Your task to perform on an android device: change the clock style Image 0: 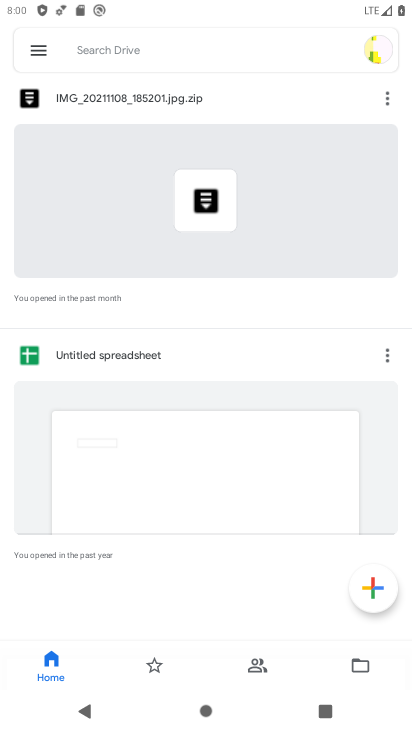
Step 0: press home button
Your task to perform on an android device: change the clock style Image 1: 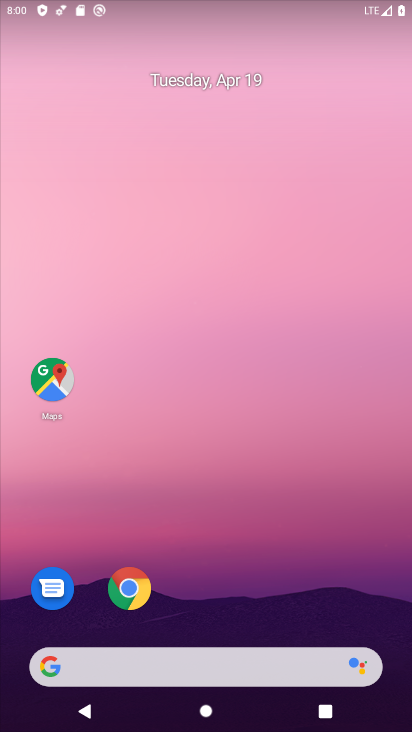
Step 1: drag from (225, 549) to (223, 55)
Your task to perform on an android device: change the clock style Image 2: 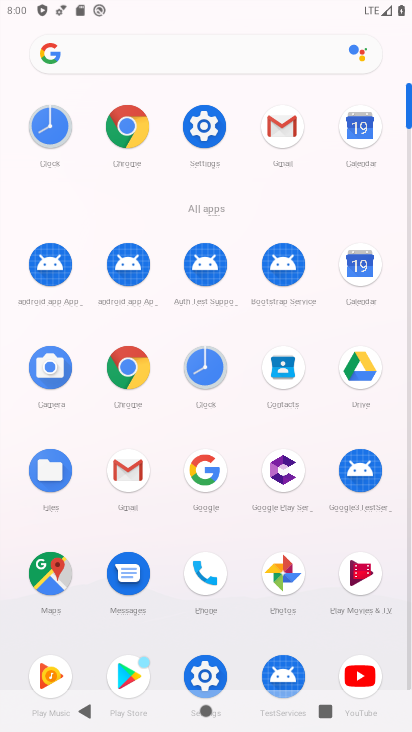
Step 2: click (202, 364)
Your task to perform on an android device: change the clock style Image 3: 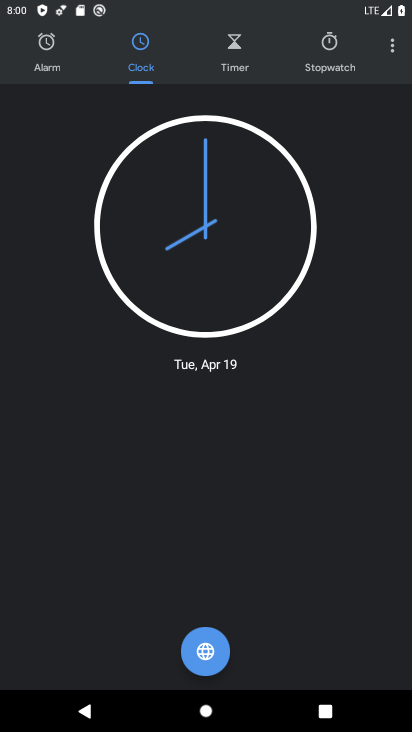
Step 3: click (388, 48)
Your task to perform on an android device: change the clock style Image 4: 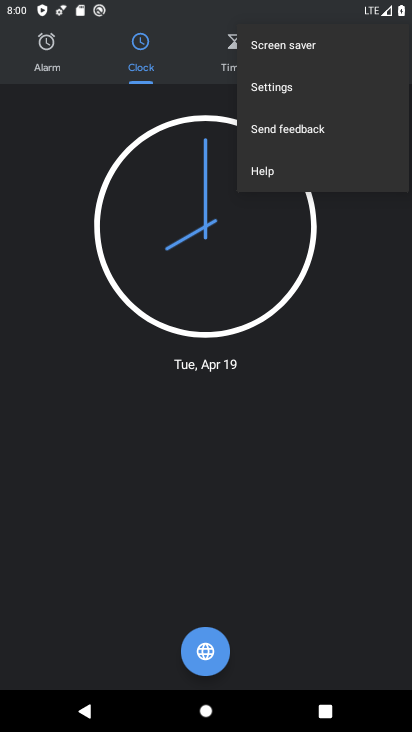
Step 4: click (294, 92)
Your task to perform on an android device: change the clock style Image 5: 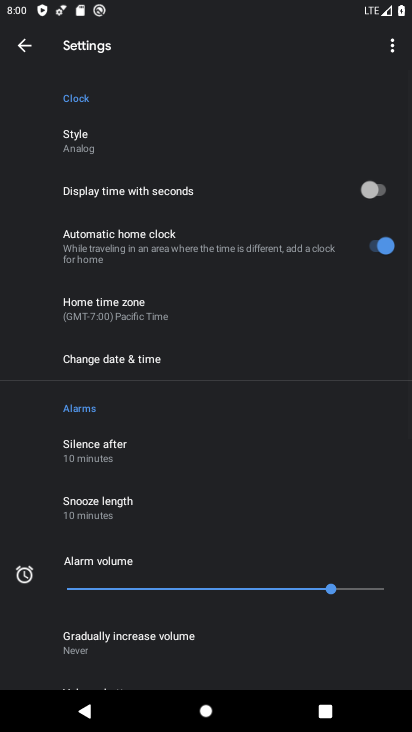
Step 5: click (90, 138)
Your task to perform on an android device: change the clock style Image 6: 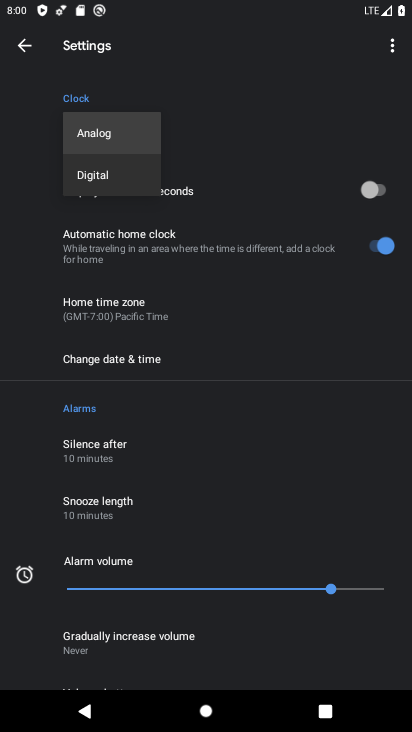
Step 6: click (116, 180)
Your task to perform on an android device: change the clock style Image 7: 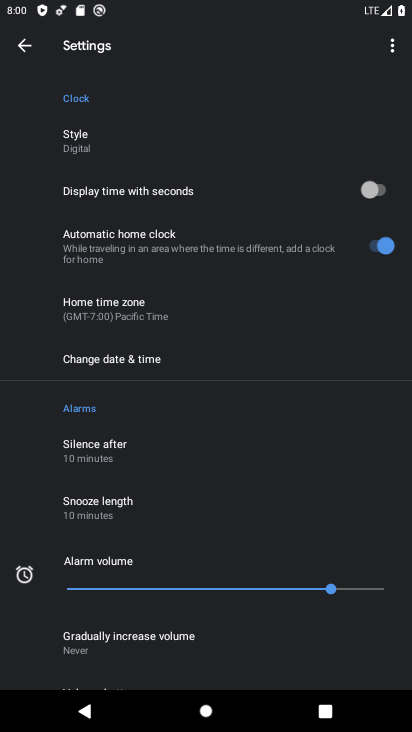
Step 7: task complete